Your task to perform on an android device: turn on the 24-hour format for clock Image 0: 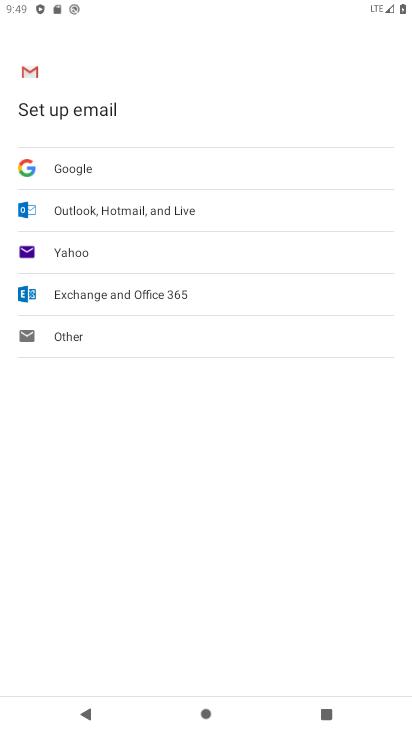
Step 0: press home button
Your task to perform on an android device: turn on the 24-hour format for clock Image 1: 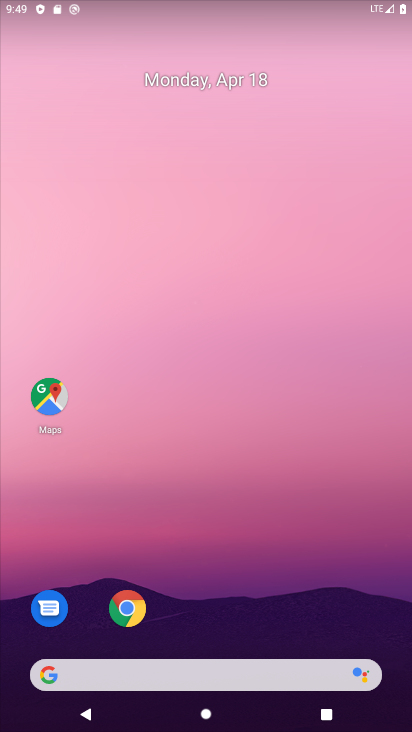
Step 1: drag from (217, 580) to (239, 55)
Your task to perform on an android device: turn on the 24-hour format for clock Image 2: 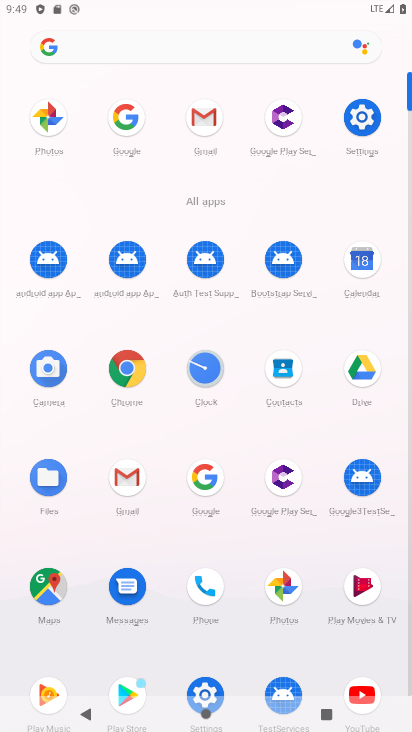
Step 2: click (203, 372)
Your task to perform on an android device: turn on the 24-hour format for clock Image 3: 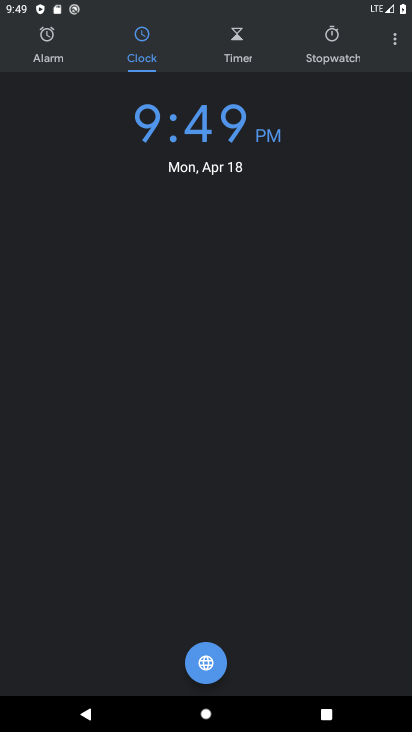
Step 3: click (396, 40)
Your task to perform on an android device: turn on the 24-hour format for clock Image 4: 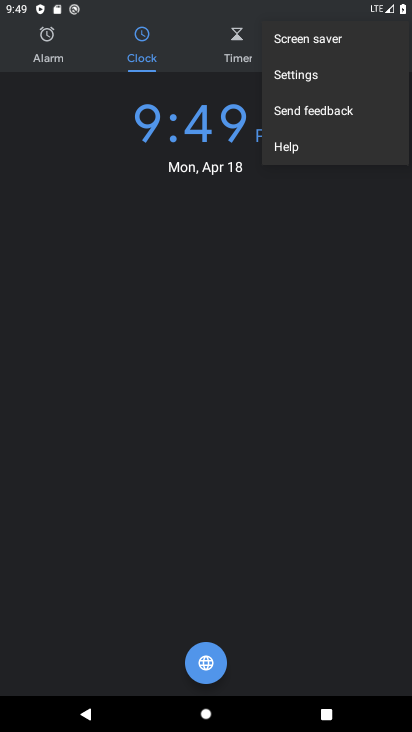
Step 4: click (347, 74)
Your task to perform on an android device: turn on the 24-hour format for clock Image 5: 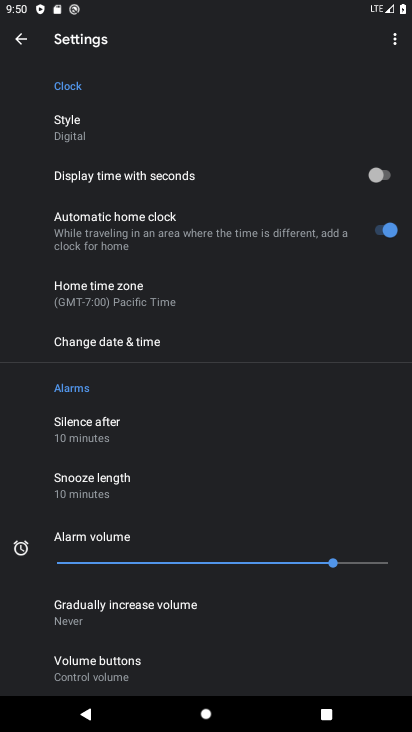
Step 5: click (182, 336)
Your task to perform on an android device: turn on the 24-hour format for clock Image 6: 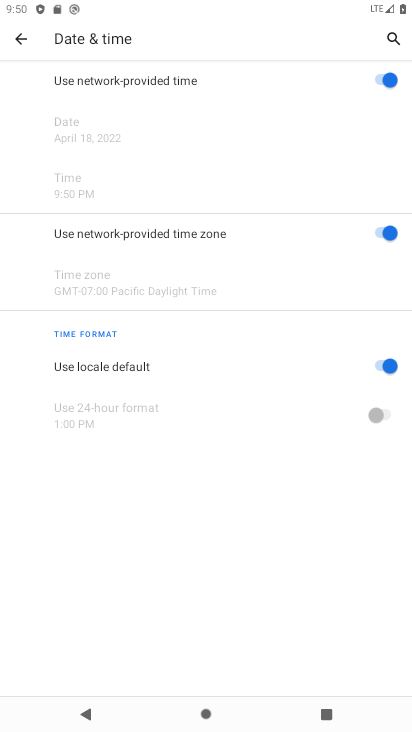
Step 6: click (376, 414)
Your task to perform on an android device: turn on the 24-hour format for clock Image 7: 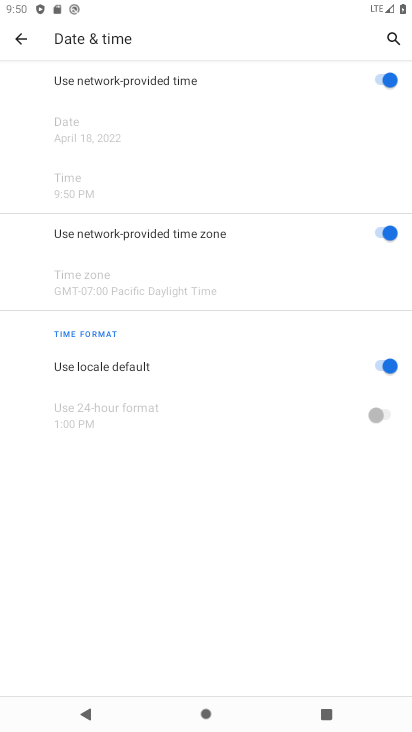
Step 7: click (384, 367)
Your task to perform on an android device: turn on the 24-hour format for clock Image 8: 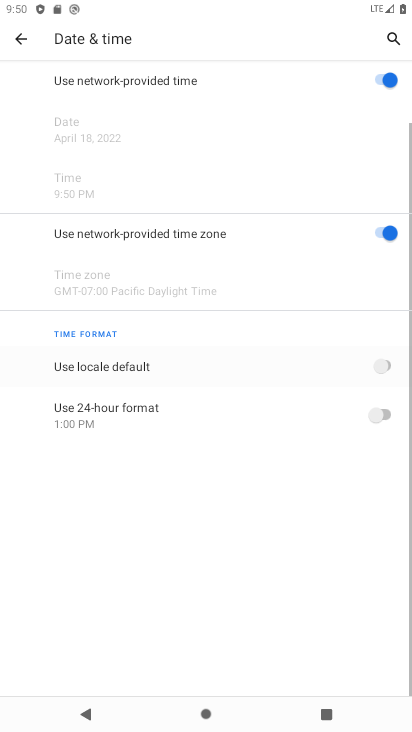
Step 8: click (378, 416)
Your task to perform on an android device: turn on the 24-hour format for clock Image 9: 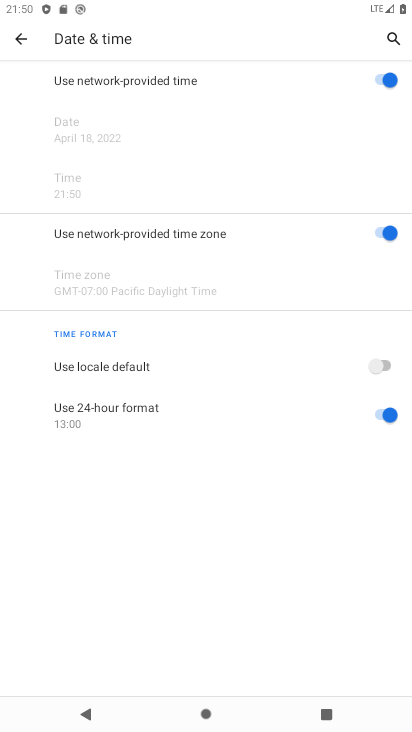
Step 9: task complete